Your task to perform on an android device: View the shopping cart on ebay.com. Image 0: 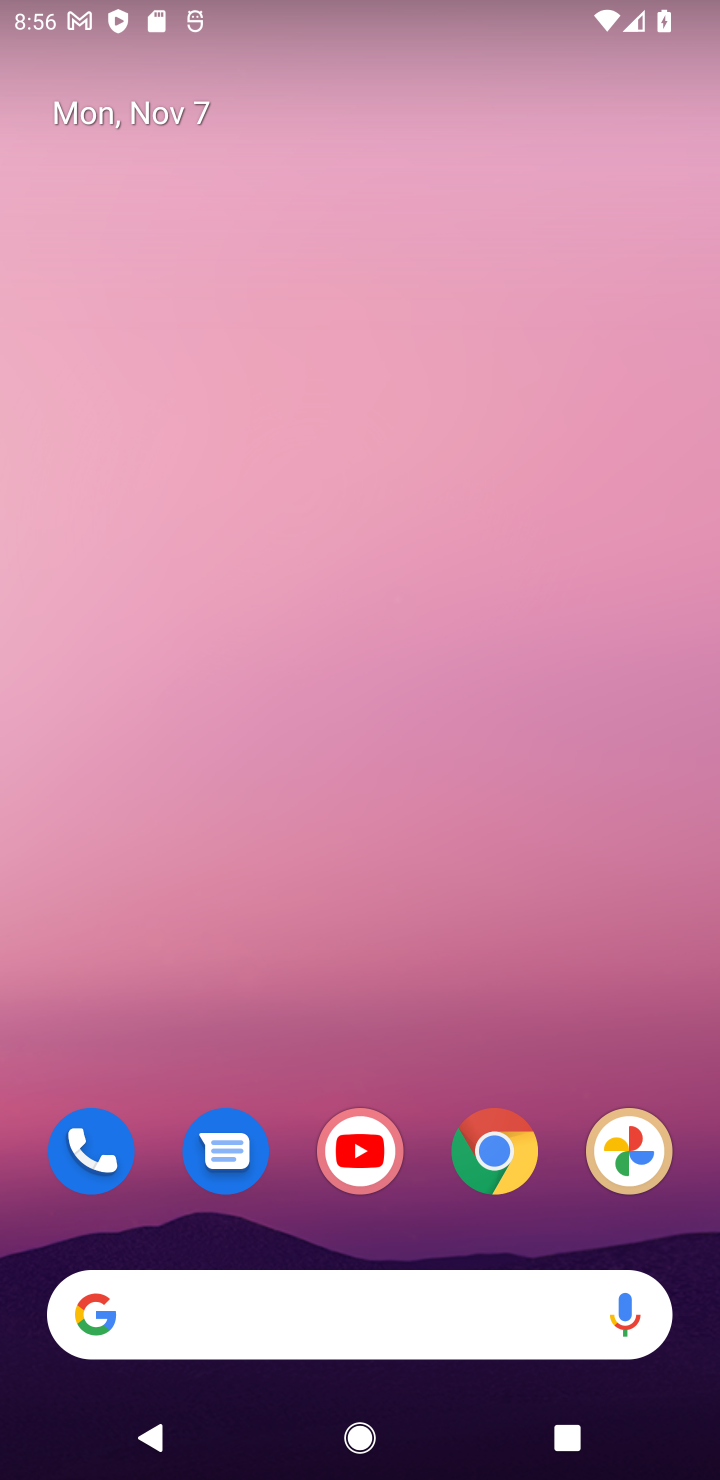
Step 0: click (488, 1156)
Your task to perform on an android device: View the shopping cart on ebay.com. Image 1: 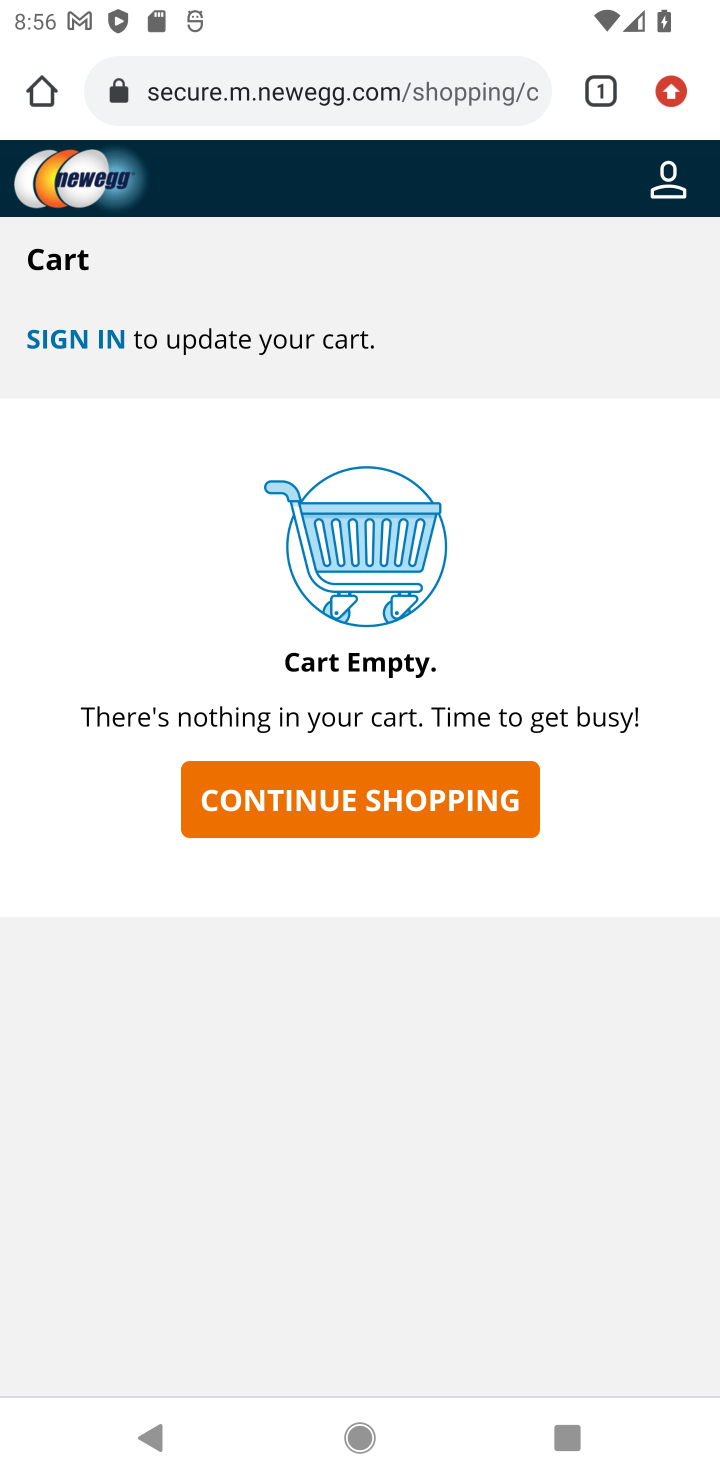
Step 1: click (378, 89)
Your task to perform on an android device: View the shopping cart on ebay.com. Image 2: 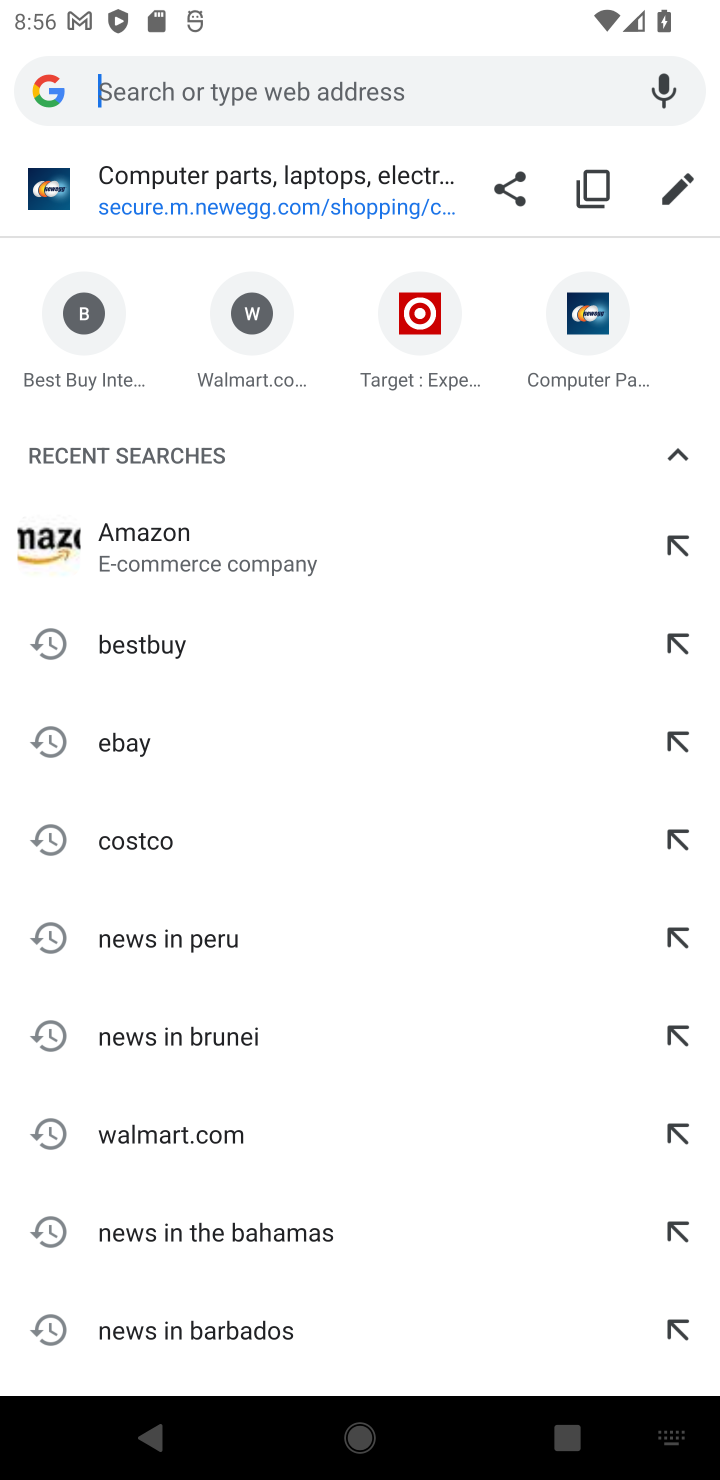
Step 2: click (121, 736)
Your task to perform on an android device: View the shopping cart on ebay.com. Image 3: 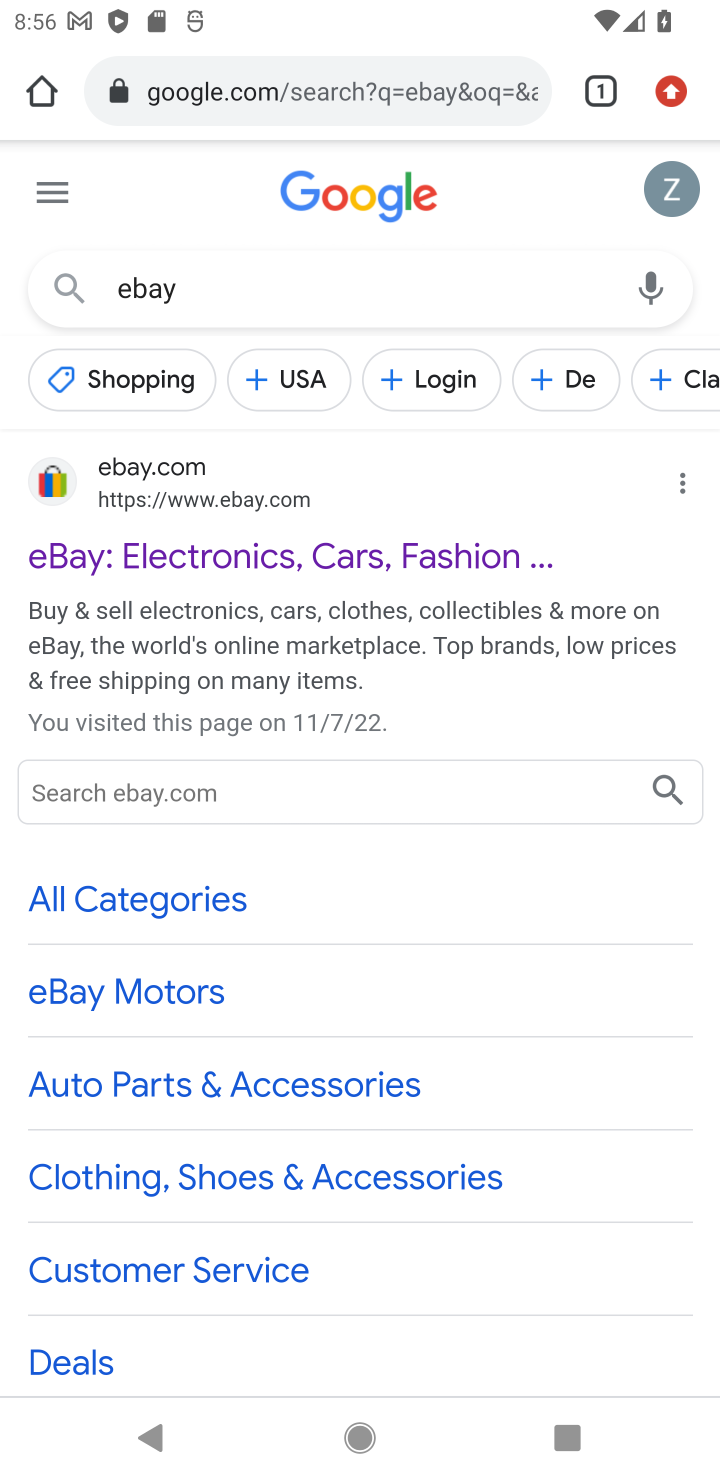
Step 3: click (246, 556)
Your task to perform on an android device: View the shopping cart on ebay.com. Image 4: 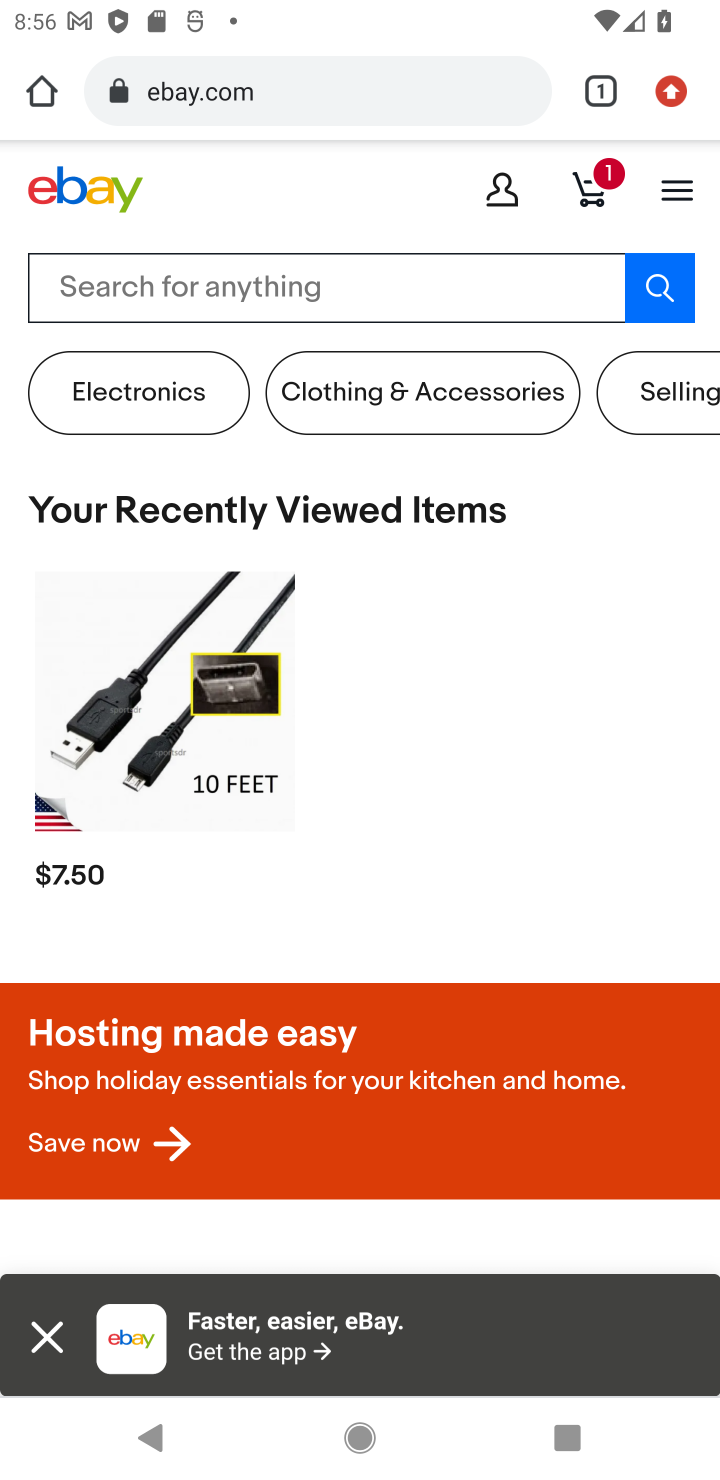
Step 4: click (597, 179)
Your task to perform on an android device: View the shopping cart on ebay.com. Image 5: 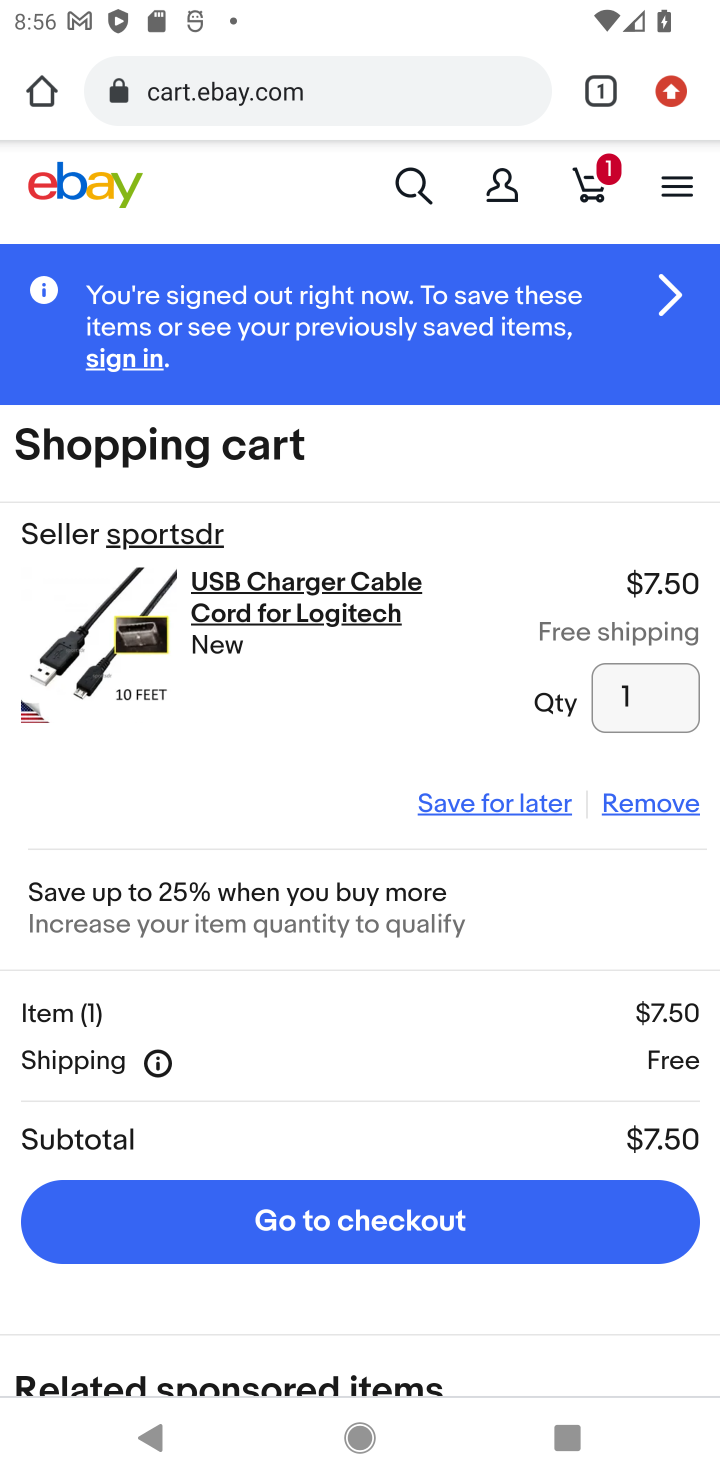
Step 5: click (680, 804)
Your task to perform on an android device: View the shopping cart on ebay.com. Image 6: 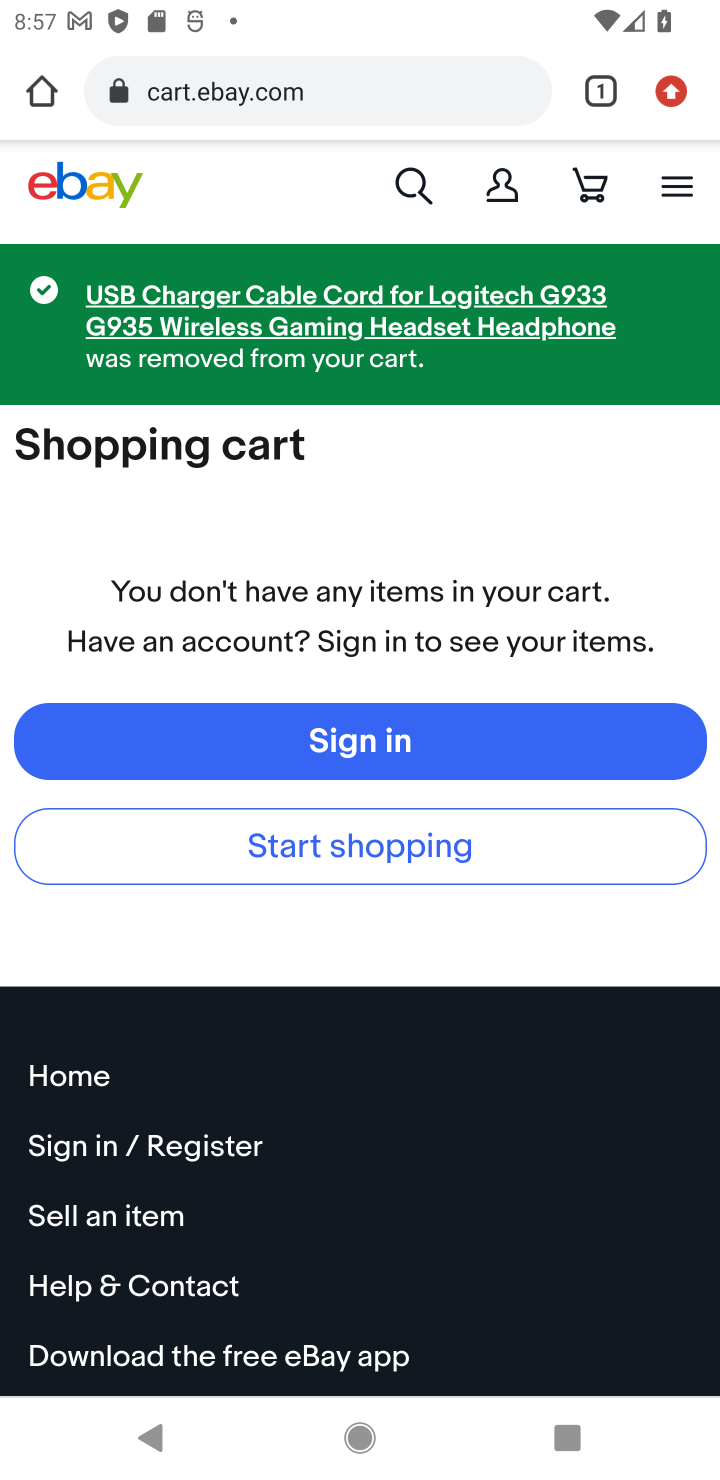
Step 6: task complete